Your task to perform on an android device: open chrome privacy settings Image 0: 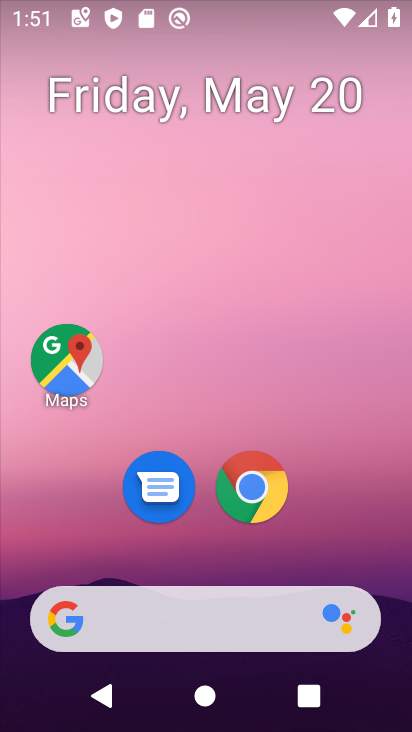
Step 0: drag from (328, 518) to (390, 65)
Your task to perform on an android device: open chrome privacy settings Image 1: 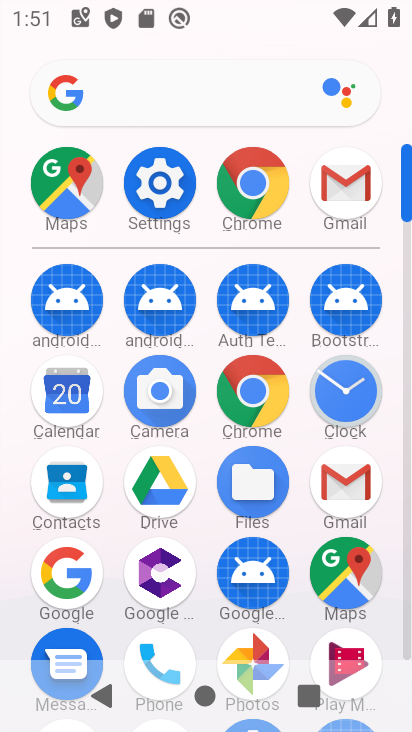
Step 1: click (255, 191)
Your task to perform on an android device: open chrome privacy settings Image 2: 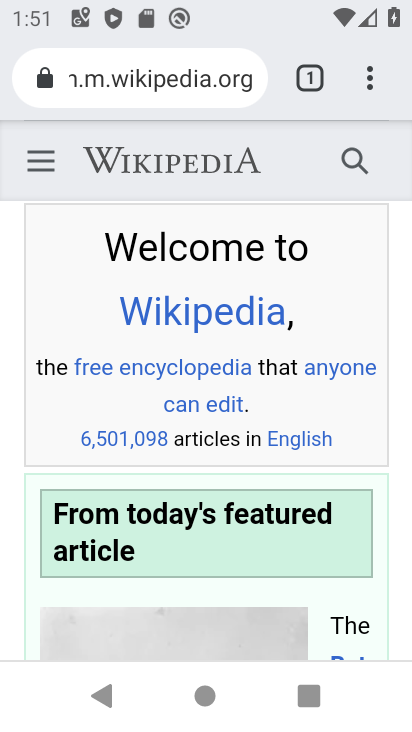
Step 2: task complete